Your task to perform on an android device: turn on airplane mode Image 0: 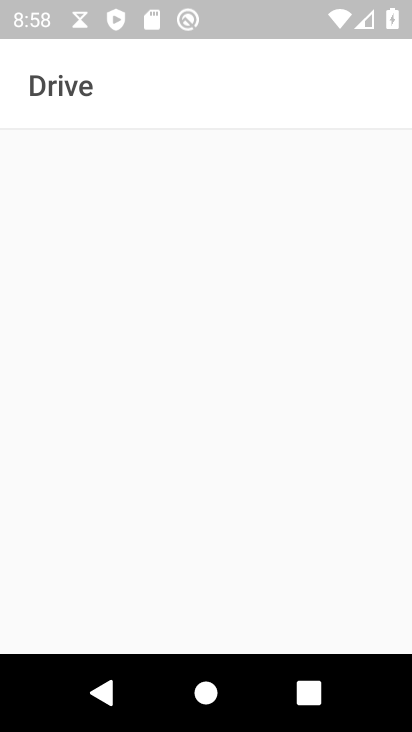
Step 0: press home button
Your task to perform on an android device: turn on airplane mode Image 1: 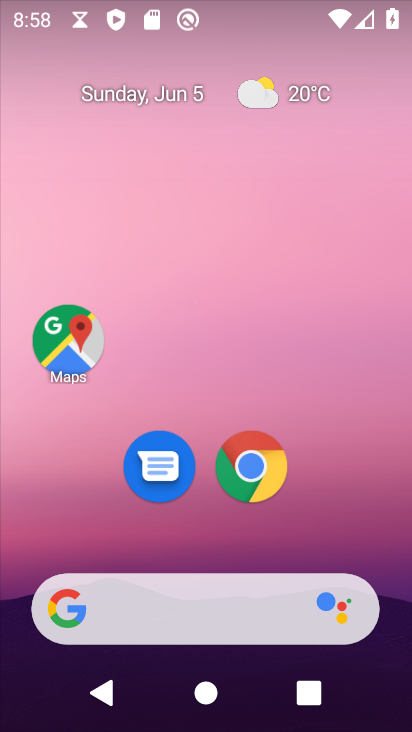
Step 1: drag from (211, 535) to (220, 149)
Your task to perform on an android device: turn on airplane mode Image 2: 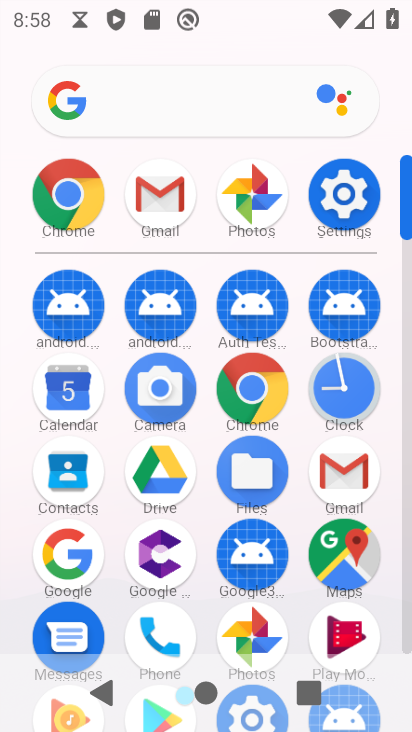
Step 2: click (348, 198)
Your task to perform on an android device: turn on airplane mode Image 3: 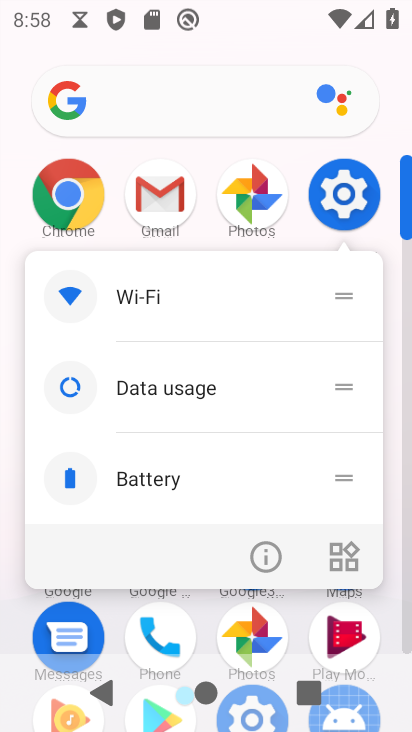
Step 3: click (346, 200)
Your task to perform on an android device: turn on airplane mode Image 4: 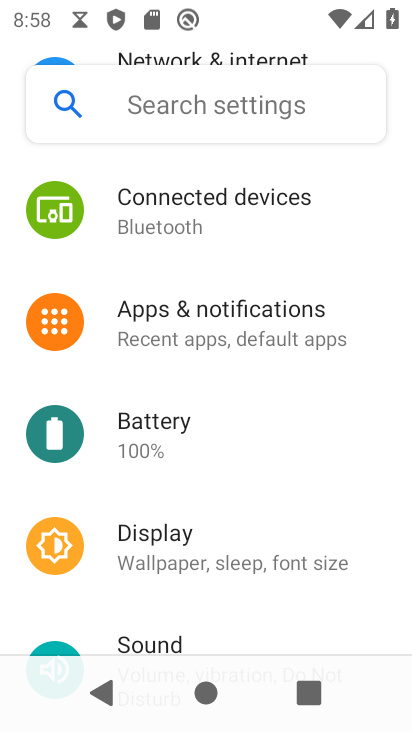
Step 4: drag from (242, 258) to (166, 630)
Your task to perform on an android device: turn on airplane mode Image 5: 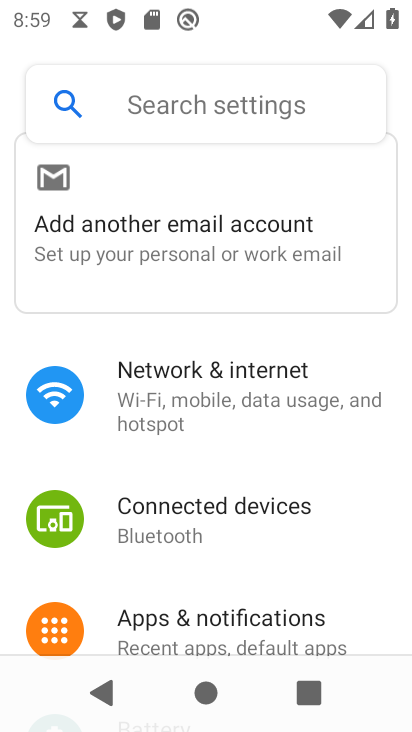
Step 5: click (133, 421)
Your task to perform on an android device: turn on airplane mode Image 6: 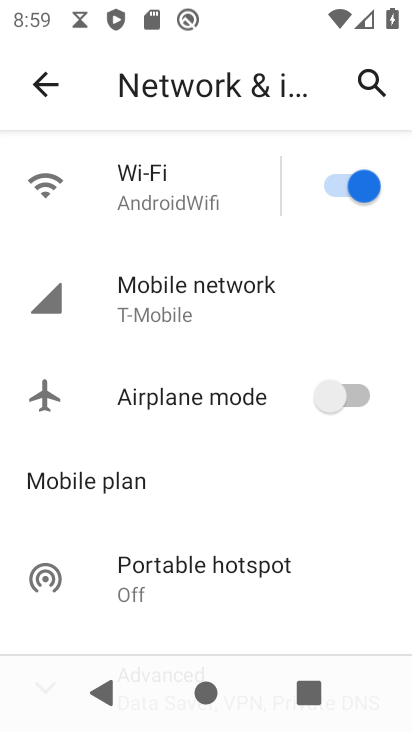
Step 6: click (370, 401)
Your task to perform on an android device: turn on airplane mode Image 7: 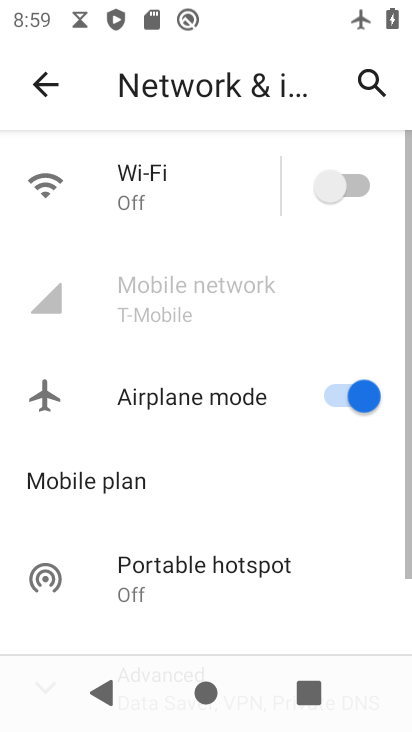
Step 7: task complete